Your task to perform on an android device: open device folders in google photos Image 0: 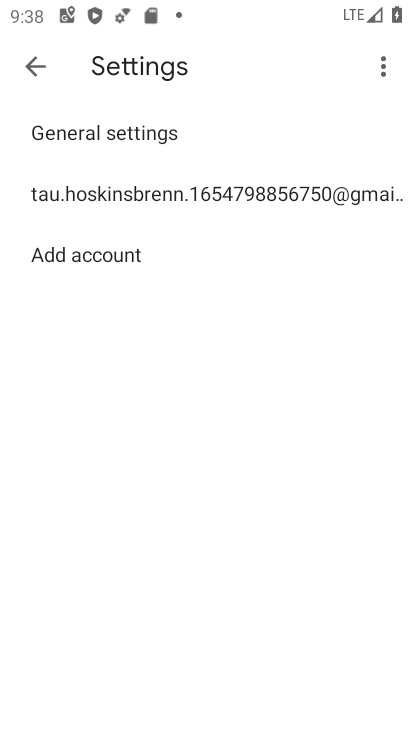
Step 0: press home button
Your task to perform on an android device: open device folders in google photos Image 1: 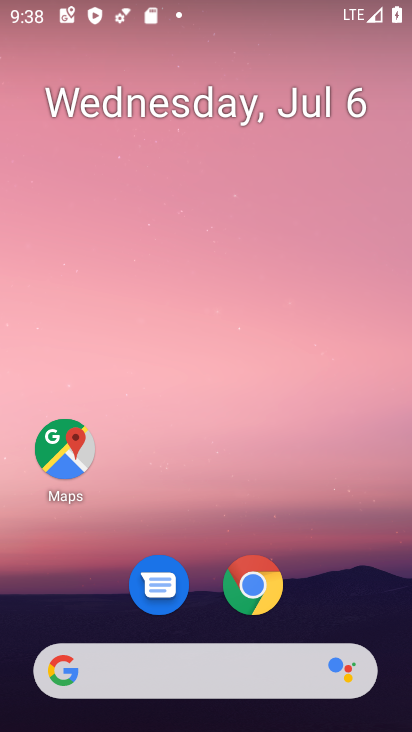
Step 1: drag from (238, 508) to (262, 6)
Your task to perform on an android device: open device folders in google photos Image 2: 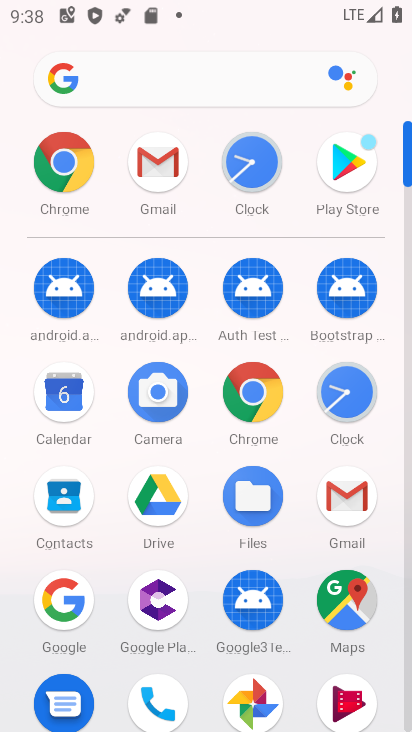
Step 2: drag from (189, 492) to (228, 119)
Your task to perform on an android device: open device folders in google photos Image 3: 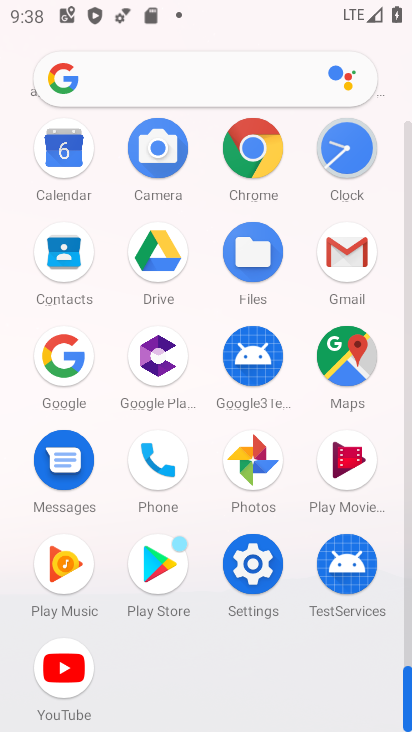
Step 3: click (260, 461)
Your task to perform on an android device: open device folders in google photos Image 4: 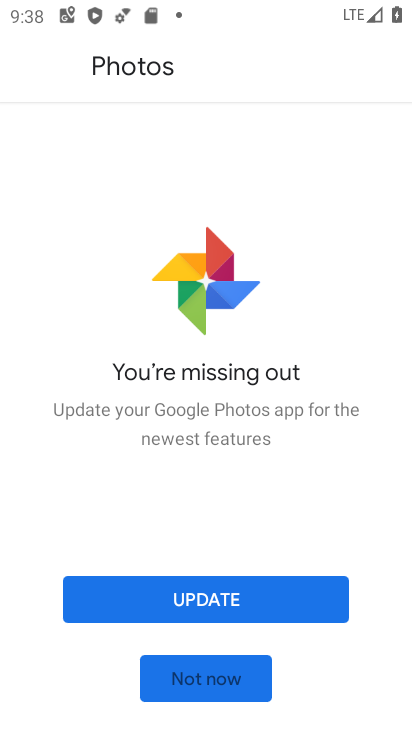
Step 4: click (234, 679)
Your task to perform on an android device: open device folders in google photos Image 5: 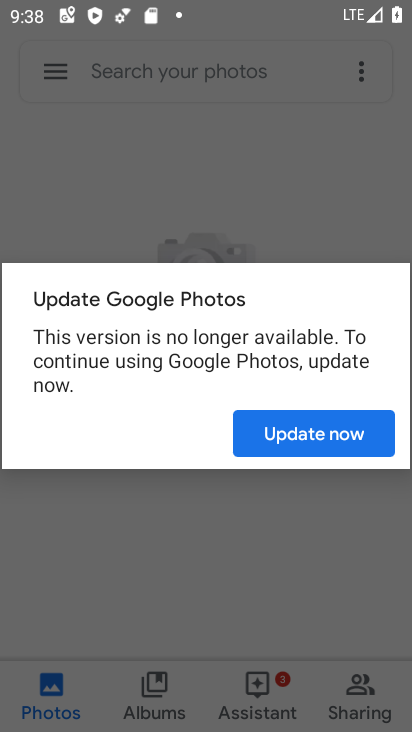
Step 5: click (323, 429)
Your task to perform on an android device: open device folders in google photos Image 6: 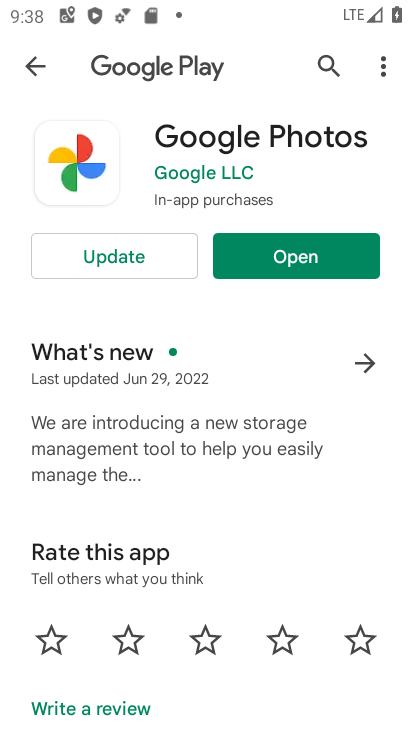
Step 6: click (319, 244)
Your task to perform on an android device: open device folders in google photos Image 7: 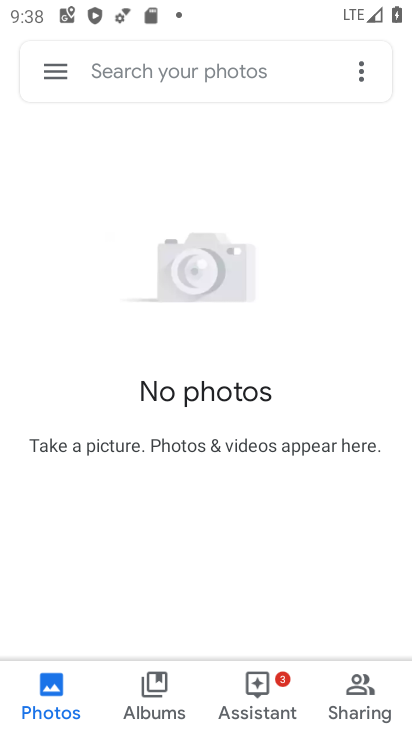
Step 7: click (44, 67)
Your task to perform on an android device: open device folders in google photos Image 8: 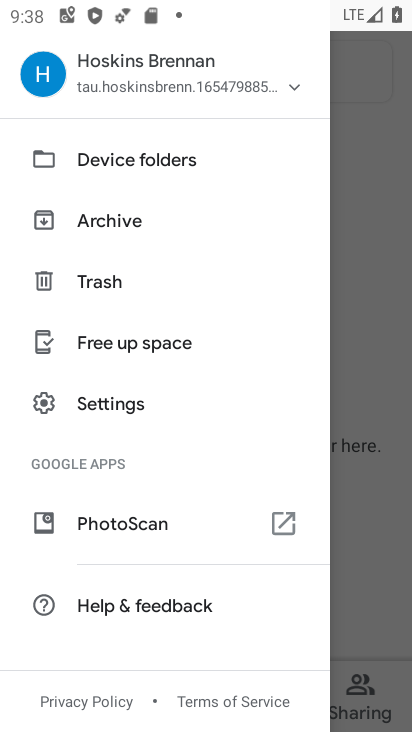
Step 8: click (102, 165)
Your task to perform on an android device: open device folders in google photos Image 9: 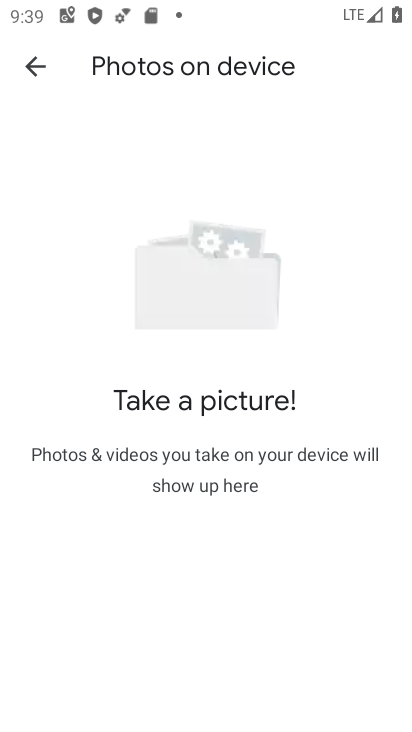
Step 9: task complete